Your task to perform on an android device: clear history in the chrome app Image 0: 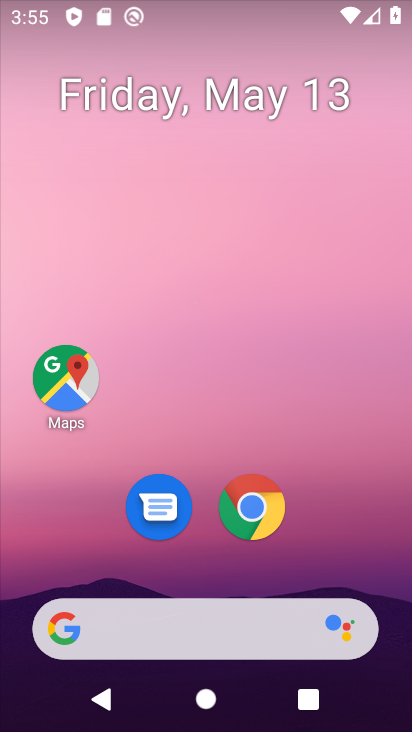
Step 0: click (243, 509)
Your task to perform on an android device: clear history in the chrome app Image 1: 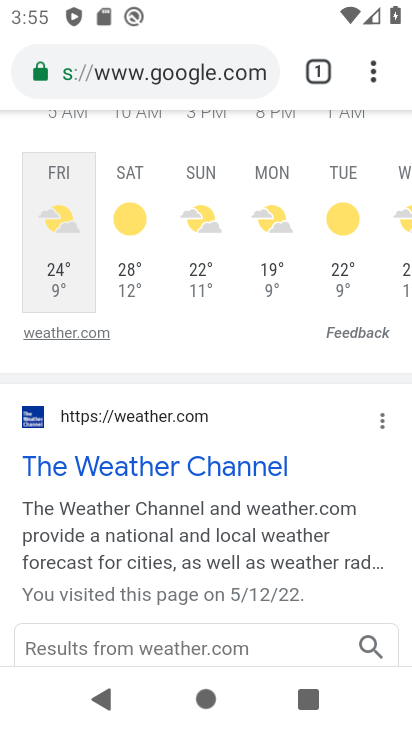
Step 1: click (378, 61)
Your task to perform on an android device: clear history in the chrome app Image 2: 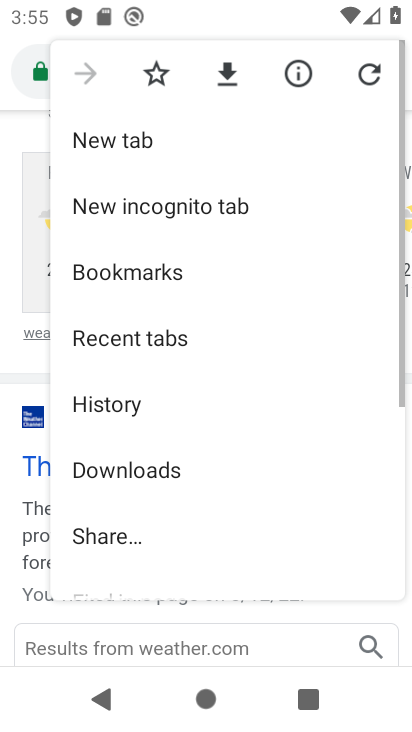
Step 2: click (134, 409)
Your task to perform on an android device: clear history in the chrome app Image 3: 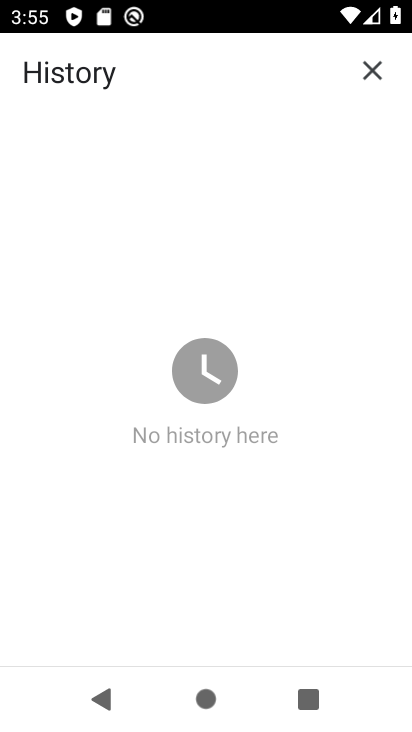
Step 3: task complete